Your task to perform on an android device: Clear the shopping cart on target.com. Search for "dell xps" on target.com, select the first entry, add it to the cart, then select checkout. Image 0: 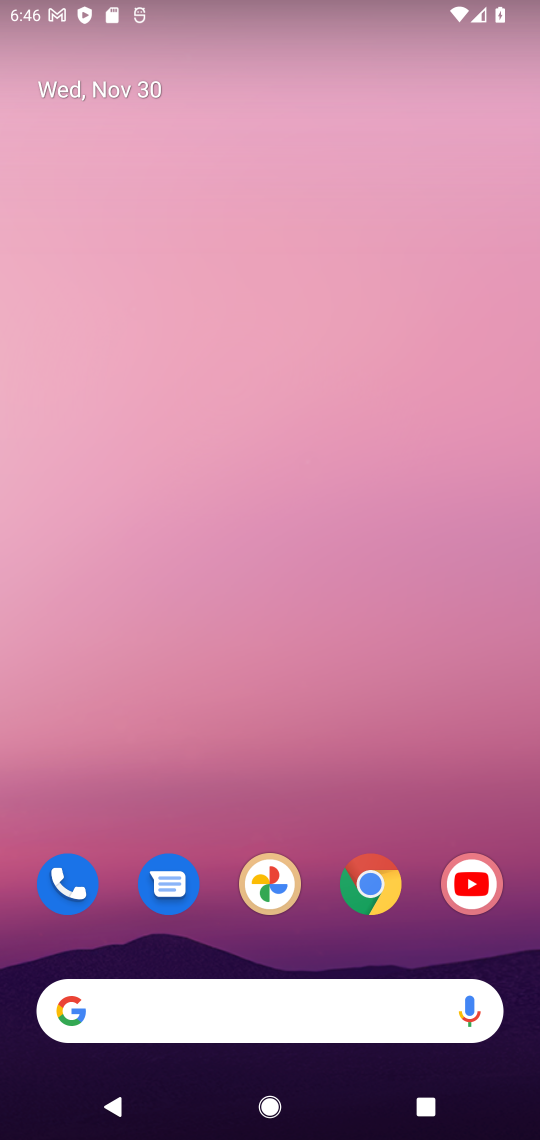
Step 0: click (362, 901)
Your task to perform on an android device: Clear the shopping cart on target.com. Search for "dell xps" on target.com, select the first entry, add it to the cart, then select checkout. Image 1: 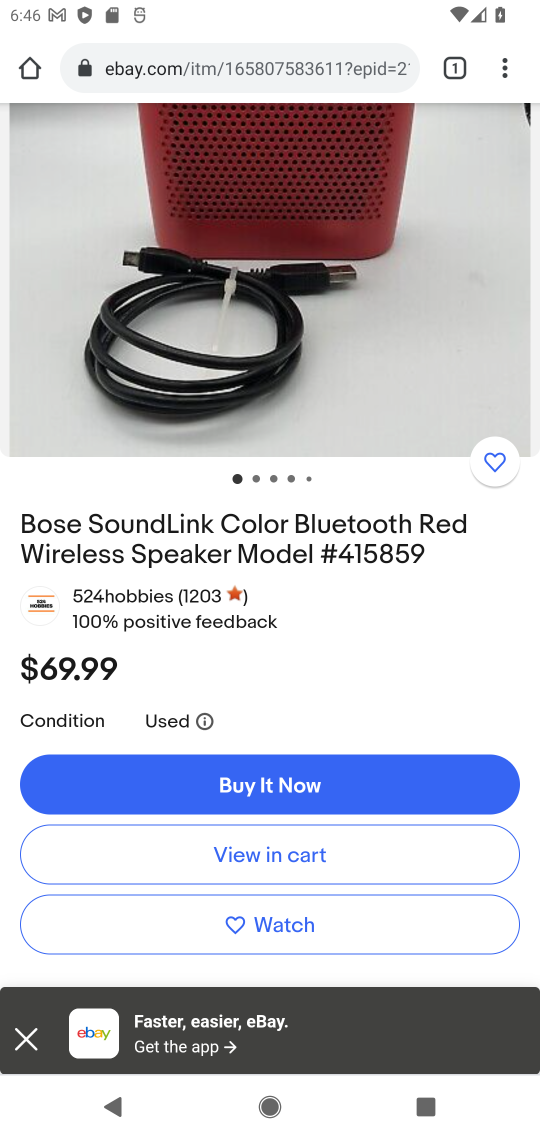
Step 1: click (248, 72)
Your task to perform on an android device: Clear the shopping cart on target.com. Search for "dell xps" on target.com, select the first entry, add it to the cart, then select checkout. Image 2: 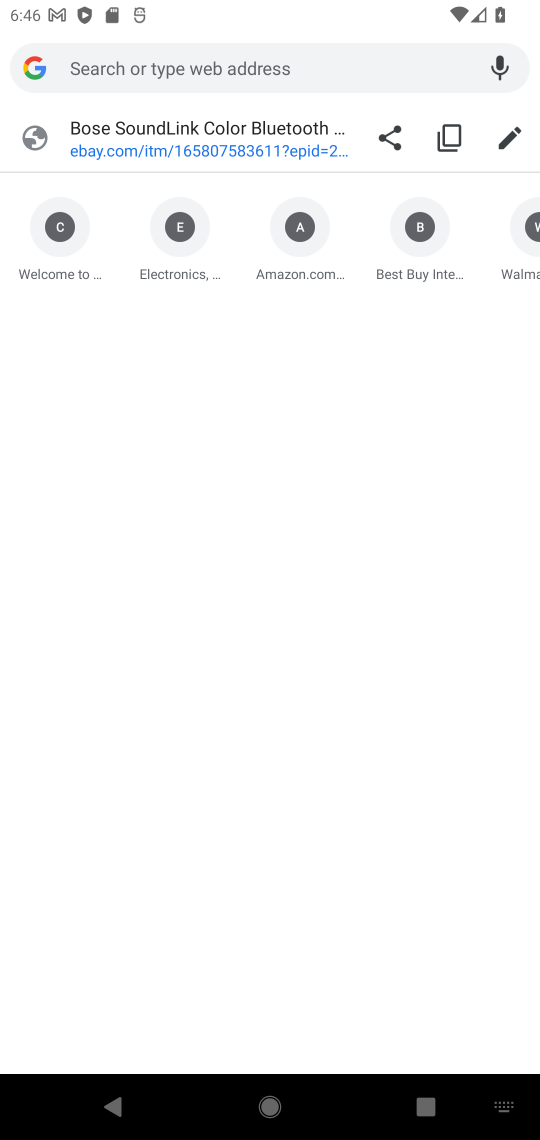
Step 2: type "target.com"
Your task to perform on an android device: Clear the shopping cart on target.com. Search for "dell xps" on target.com, select the first entry, add it to the cart, then select checkout. Image 3: 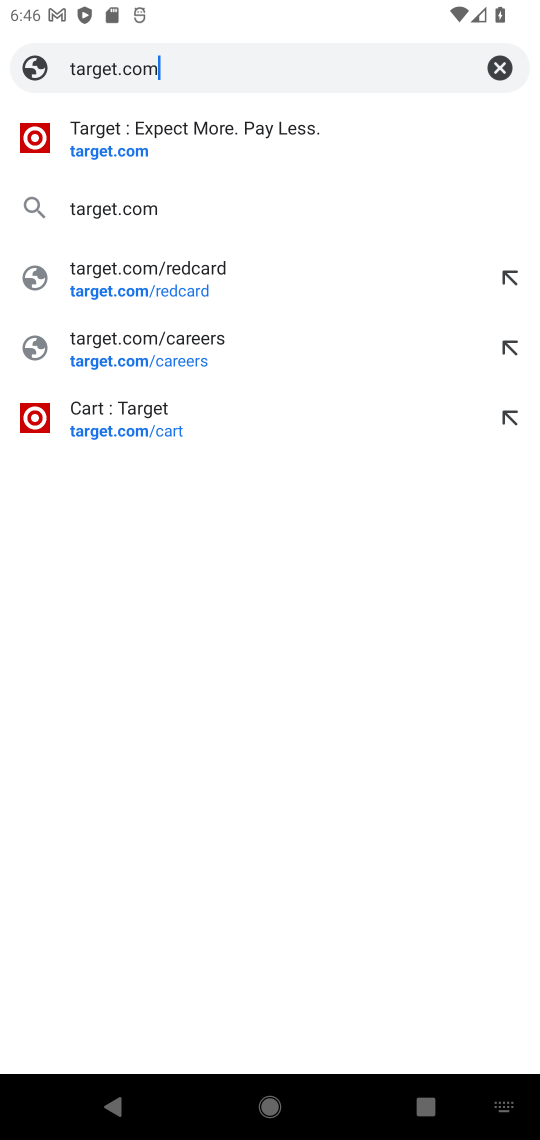
Step 3: click (116, 138)
Your task to perform on an android device: Clear the shopping cart on target.com. Search for "dell xps" on target.com, select the first entry, add it to the cart, then select checkout. Image 4: 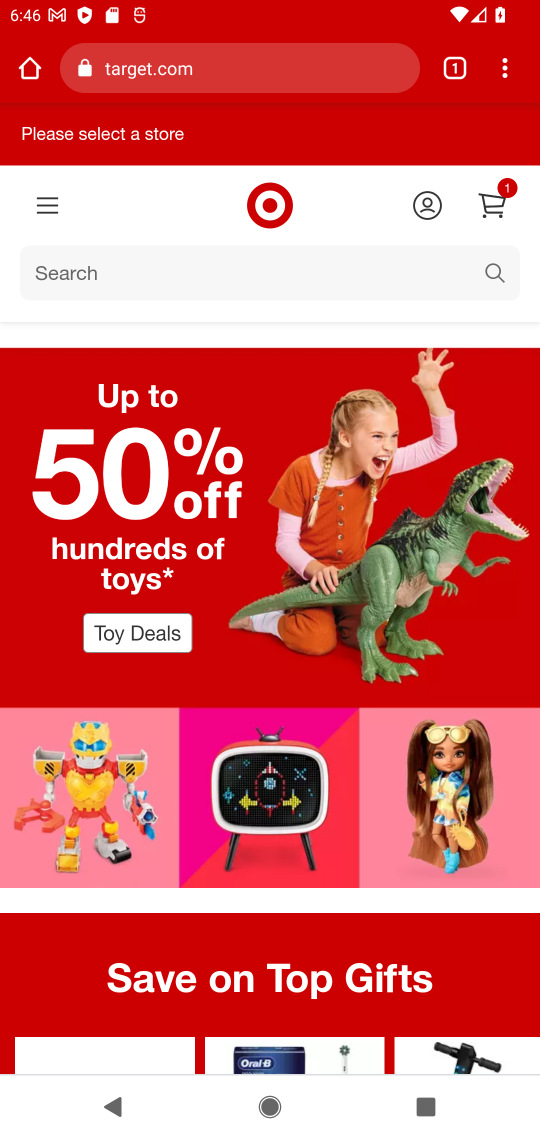
Step 4: click (497, 211)
Your task to perform on an android device: Clear the shopping cart on target.com. Search for "dell xps" on target.com, select the first entry, add it to the cart, then select checkout. Image 5: 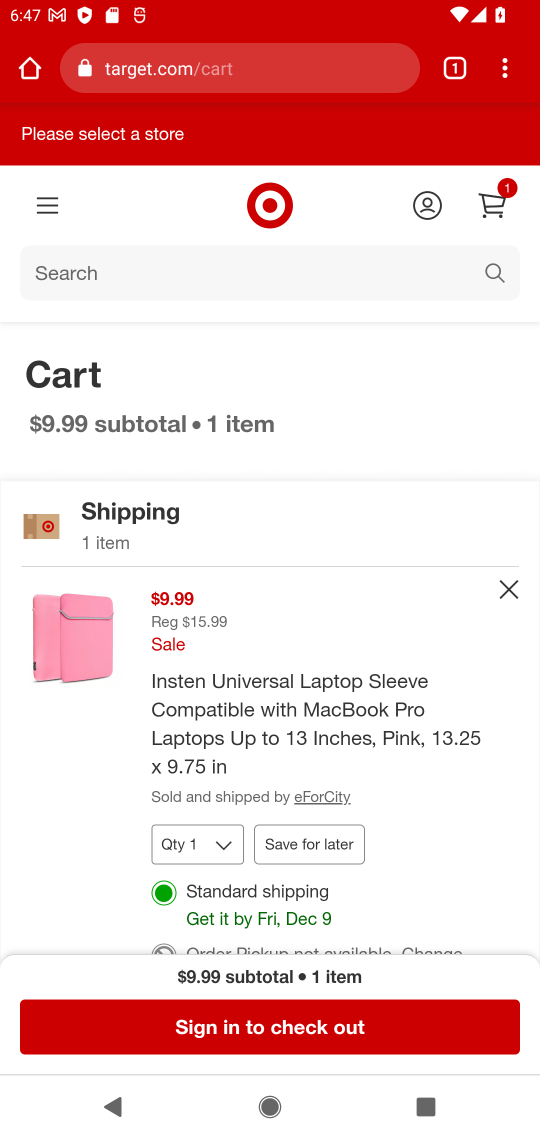
Step 5: click (510, 595)
Your task to perform on an android device: Clear the shopping cart on target.com. Search for "dell xps" on target.com, select the first entry, add it to the cart, then select checkout. Image 6: 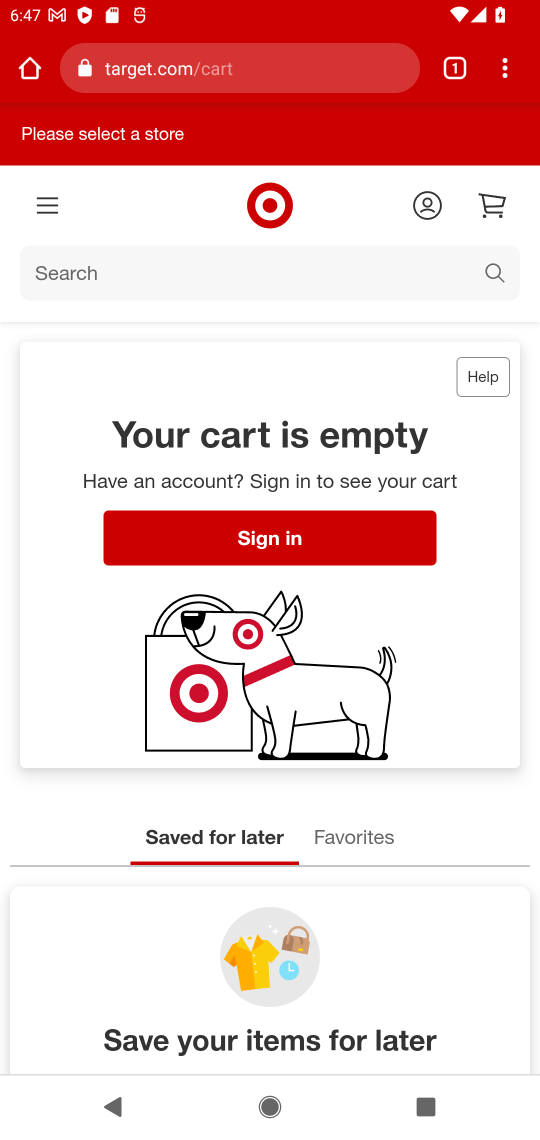
Step 6: click (45, 277)
Your task to perform on an android device: Clear the shopping cart on target.com. Search for "dell xps" on target.com, select the first entry, add it to the cart, then select checkout. Image 7: 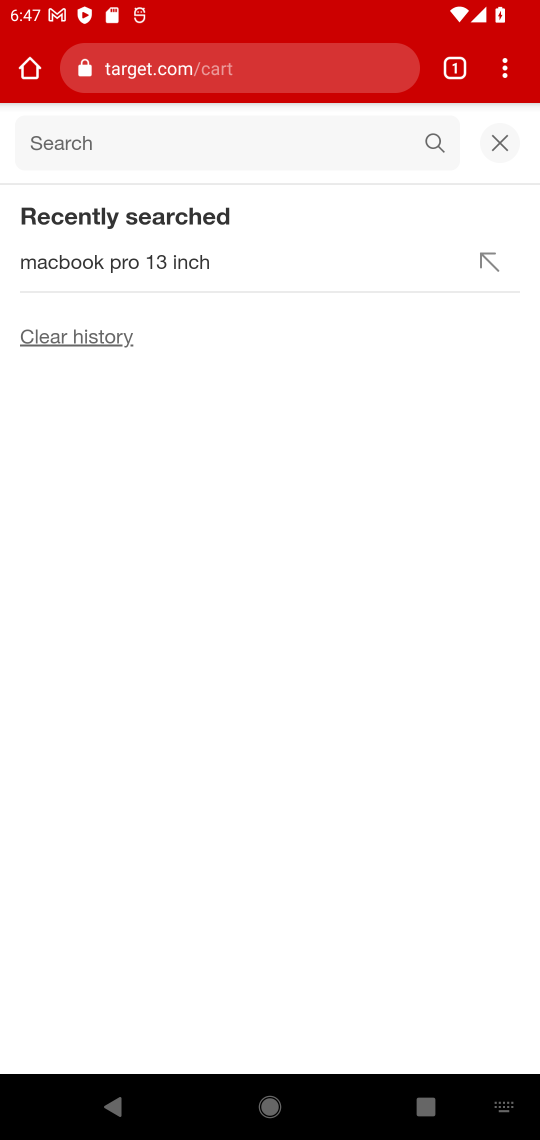
Step 7: type "dell xps"
Your task to perform on an android device: Clear the shopping cart on target.com. Search for "dell xps" on target.com, select the first entry, add it to the cart, then select checkout. Image 8: 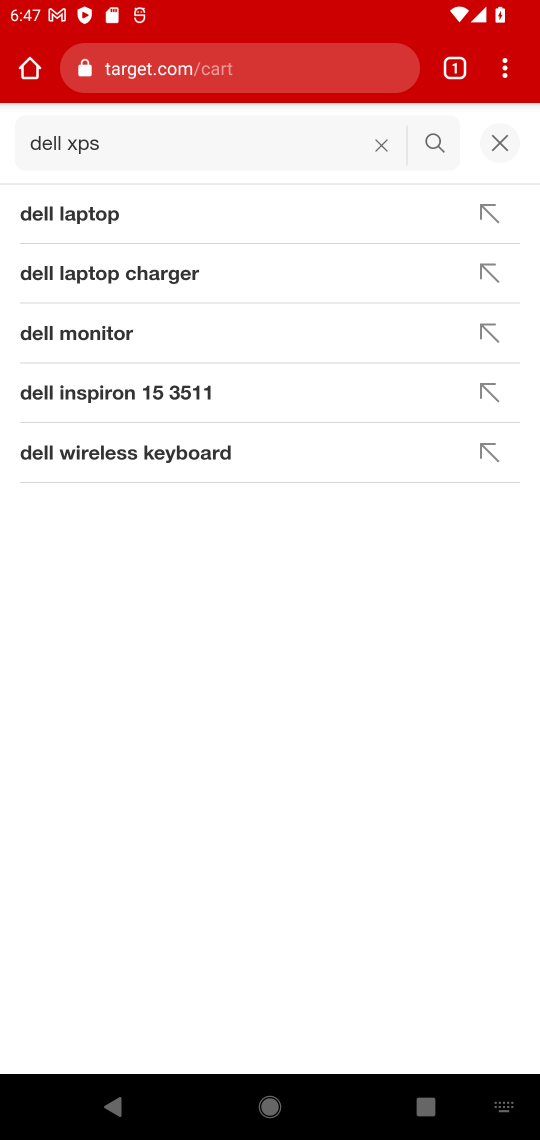
Step 8: click (437, 141)
Your task to perform on an android device: Clear the shopping cart on target.com. Search for "dell xps" on target.com, select the first entry, add it to the cart, then select checkout. Image 9: 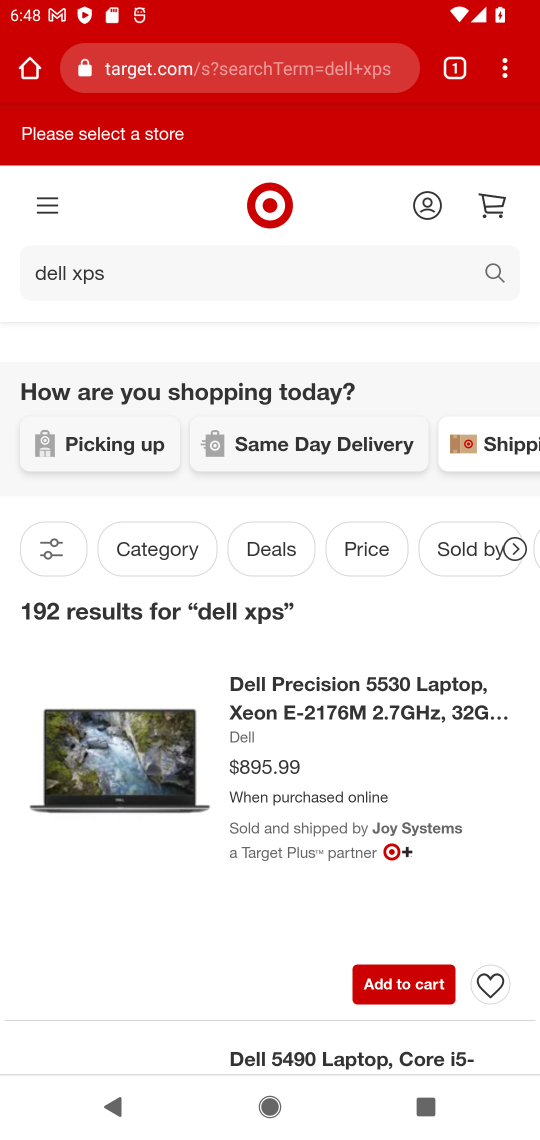
Step 9: task complete